Your task to perform on an android device: turn on the 24-hour format for clock Image 0: 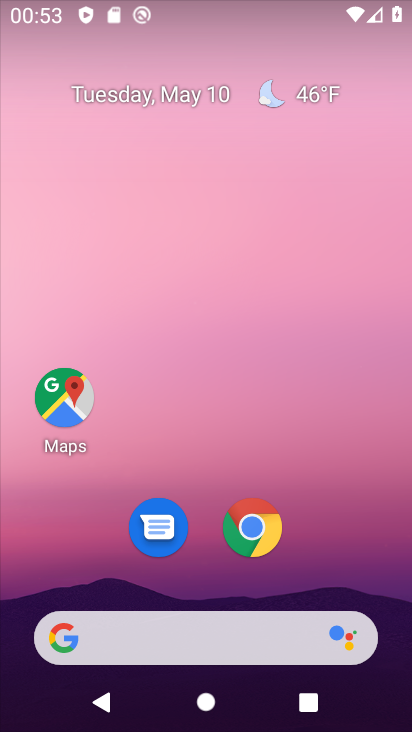
Step 0: drag from (345, 531) to (319, 105)
Your task to perform on an android device: turn on the 24-hour format for clock Image 1: 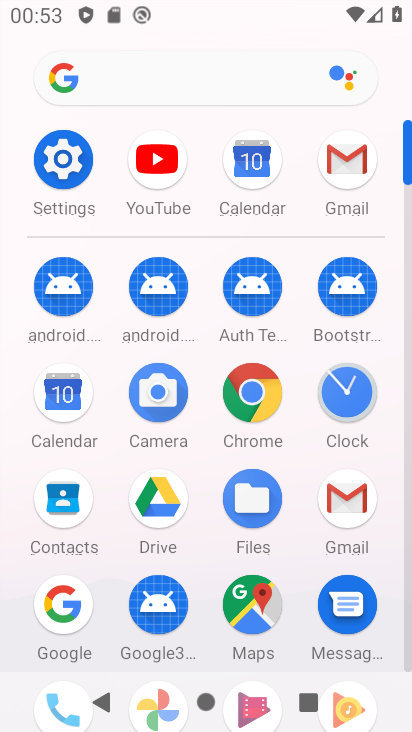
Step 1: click (344, 399)
Your task to perform on an android device: turn on the 24-hour format for clock Image 2: 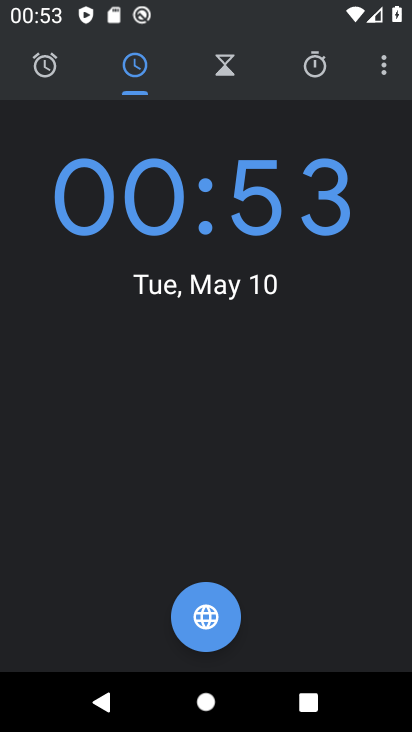
Step 2: click (383, 61)
Your task to perform on an android device: turn on the 24-hour format for clock Image 3: 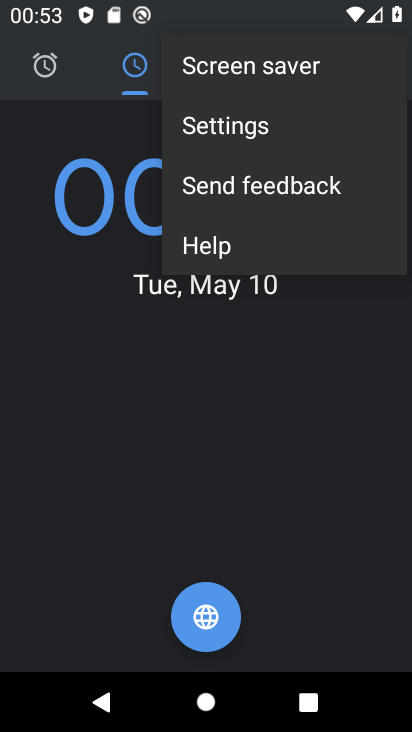
Step 3: click (228, 124)
Your task to perform on an android device: turn on the 24-hour format for clock Image 4: 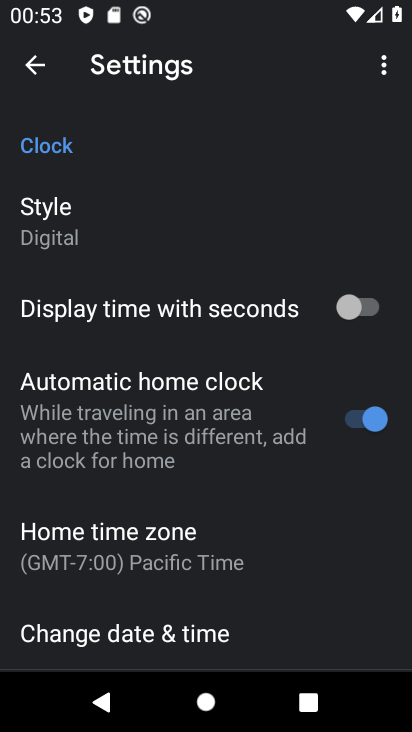
Step 4: click (168, 628)
Your task to perform on an android device: turn on the 24-hour format for clock Image 5: 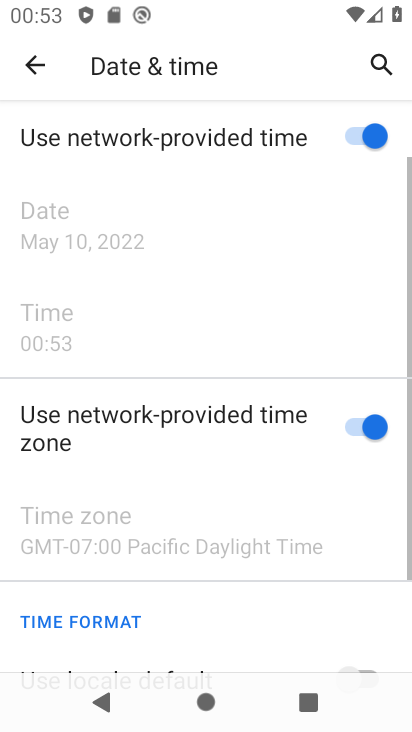
Step 5: task complete